Your task to perform on an android device: Search for sushi restaurants on Maps Image 0: 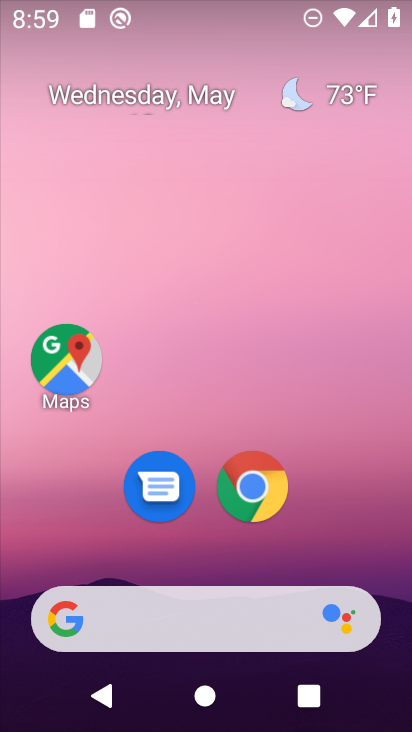
Step 0: click (64, 358)
Your task to perform on an android device: Search for sushi restaurants on Maps Image 1: 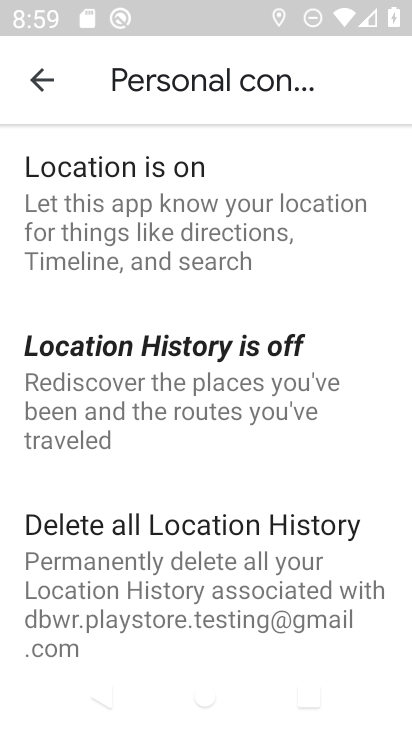
Step 1: press back button
Your task to perform on an android device: Search for sushi restaurants on Maps Image 2: 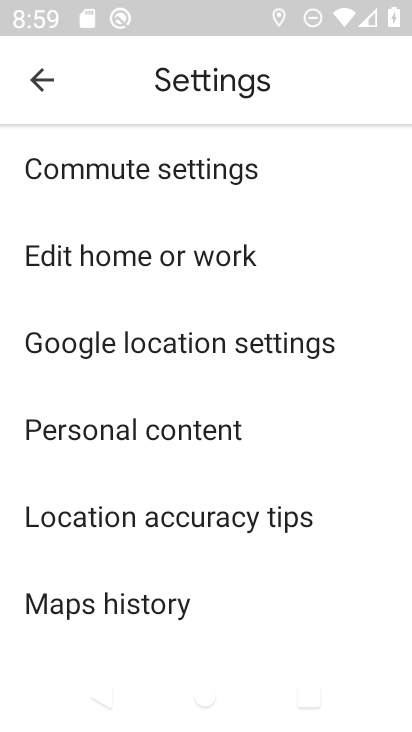
Step 2: press back button
Your task to perform on an android device: Search for sushi restaurants on Maps Image 3: 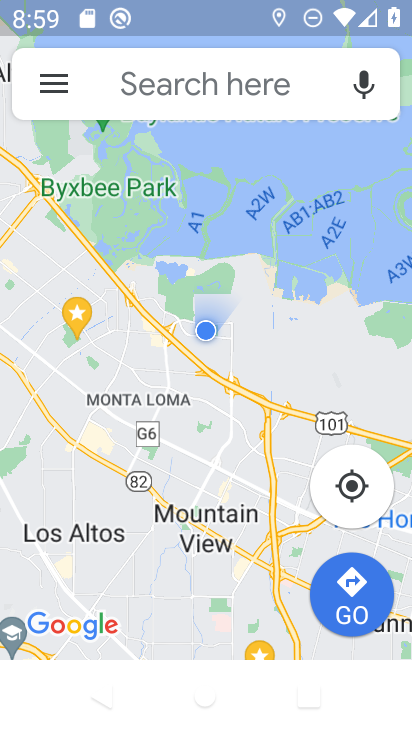
Step 3: click (163, 79)
Your task to perform on an android device: Search for sushi restaurants on Maps Image 4: 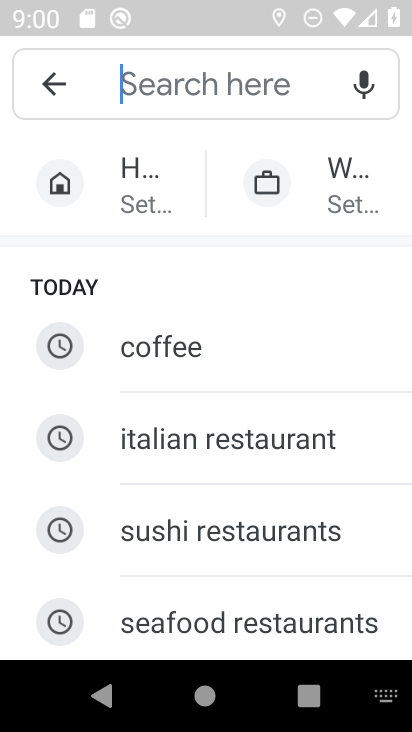
Step 4: type "sushi restaurants"
Your task to perform on an android device: Search for sushi restaurants on Maps Image 5: 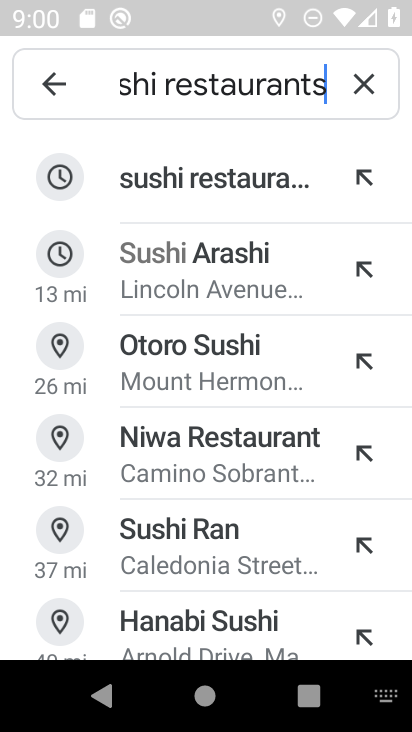
Step 5: click (200, 176)
Your task to perform on an android device: Search for sushi restaurants on Maps Image 6: 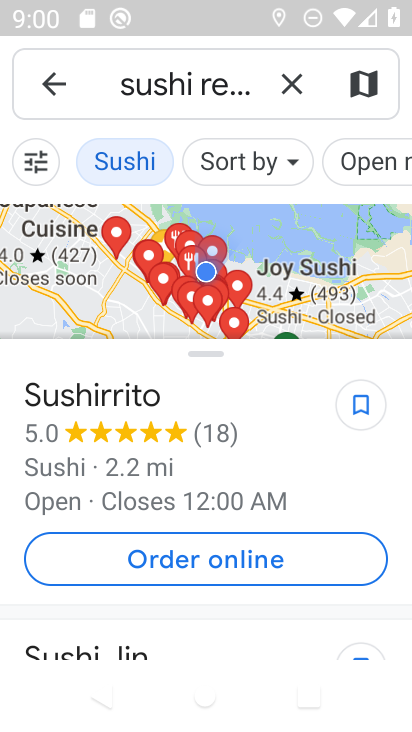
Step 6: task complete